Your task to perform on an android device: install app "Google Drive" Image 0: 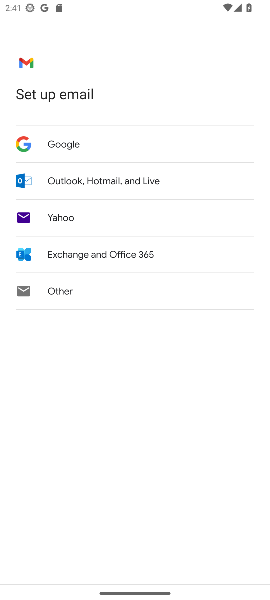
Step 0: press home button
Your task to perform on an android device: install app "Google Drive" Image 1: 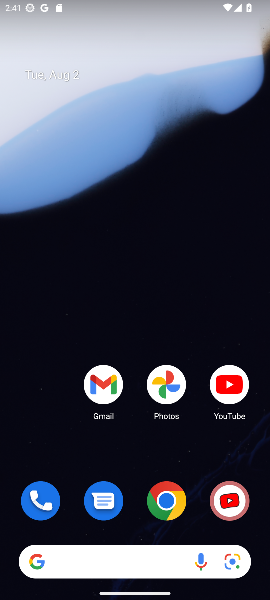
Step 1: drag from (164, 444) to (139, 79)
Your task to perform on an android device: install app "Google Drive" Image 2: 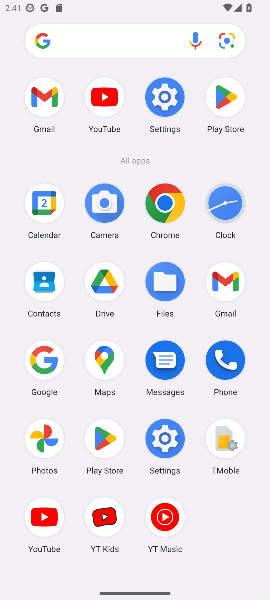
Step 2: click (219, 96)
Your task to perform on an android device: install app "Google Drive" Image 3: 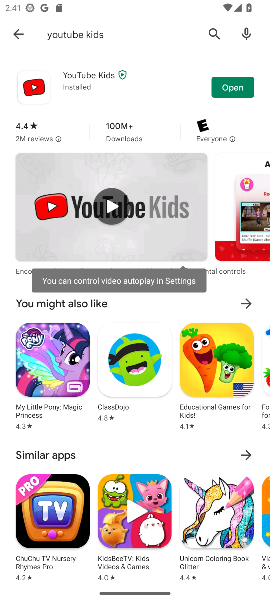
Step 3: click (205, 33)
Your task to perform on an android device: install app "Google Drive" Image 4: 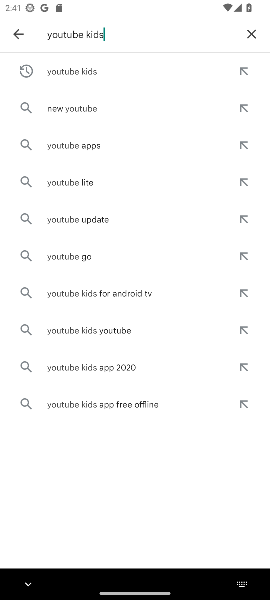
Step 4: click (257, 37)
Your task to perform on an android device: install app "Google Drive" Image 5: 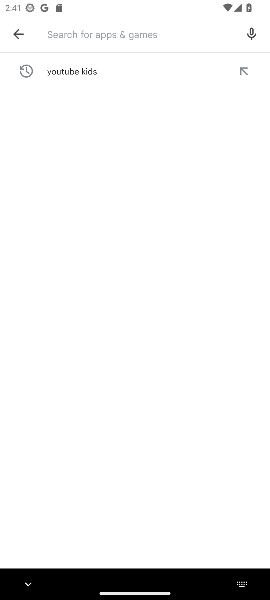
Step 5: type "Google Drive"
Your task to perform on an android device: install app "Google Drive" Image 6: 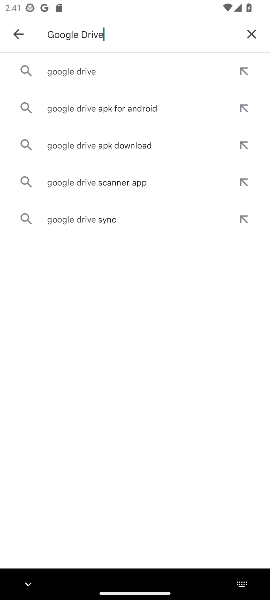
Step 6: click (67, 61)
Your task to perform on an android device: install app "Google Drive" Image 7: 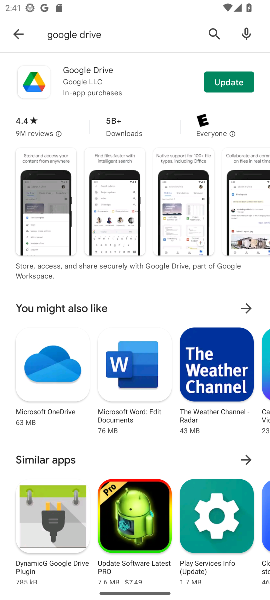
Step 7: task complete